Your task to perform on an android device: Find a good burger place on Maps Image 0: 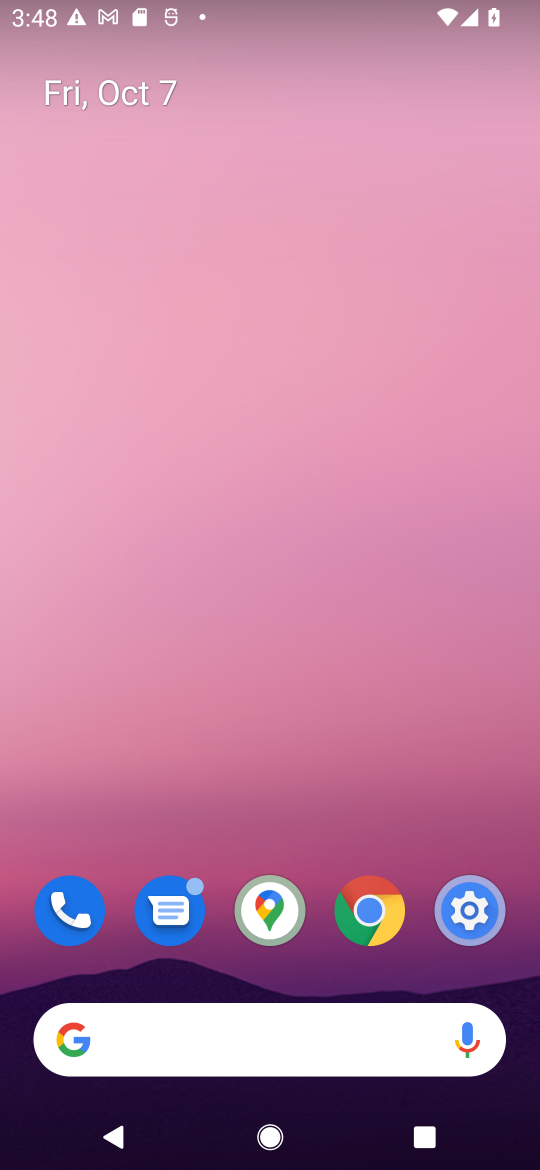
Step 0: drag from (268, 944) to (304, 402)
Your task to perform on an android device: Find a good burger place on Maps Image 1: 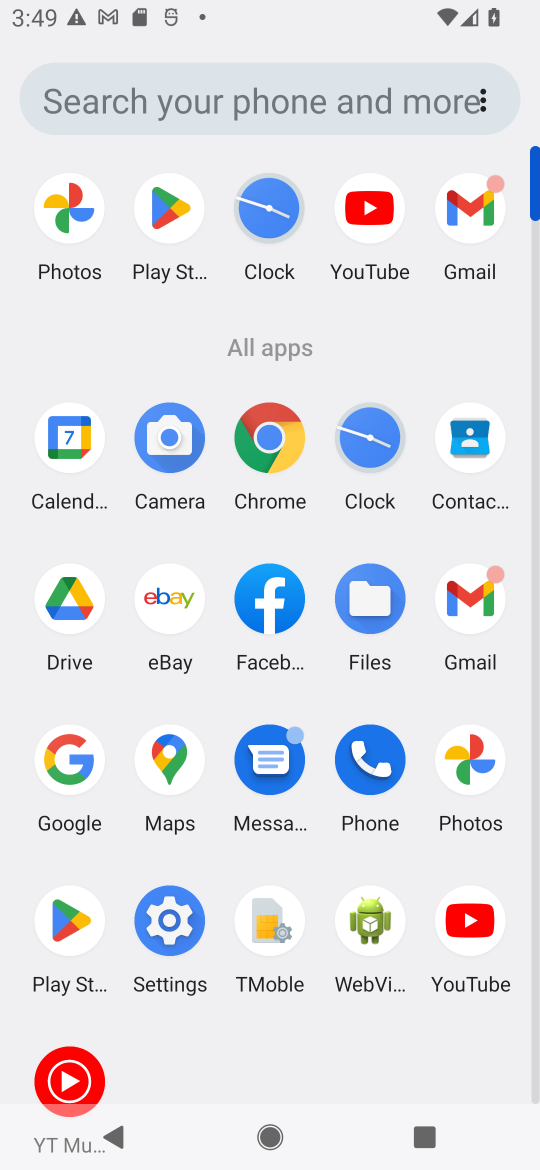
Step 1: click (166, 761)
Your task to perform on an android device: Find a good burger place on Maps Image 2: 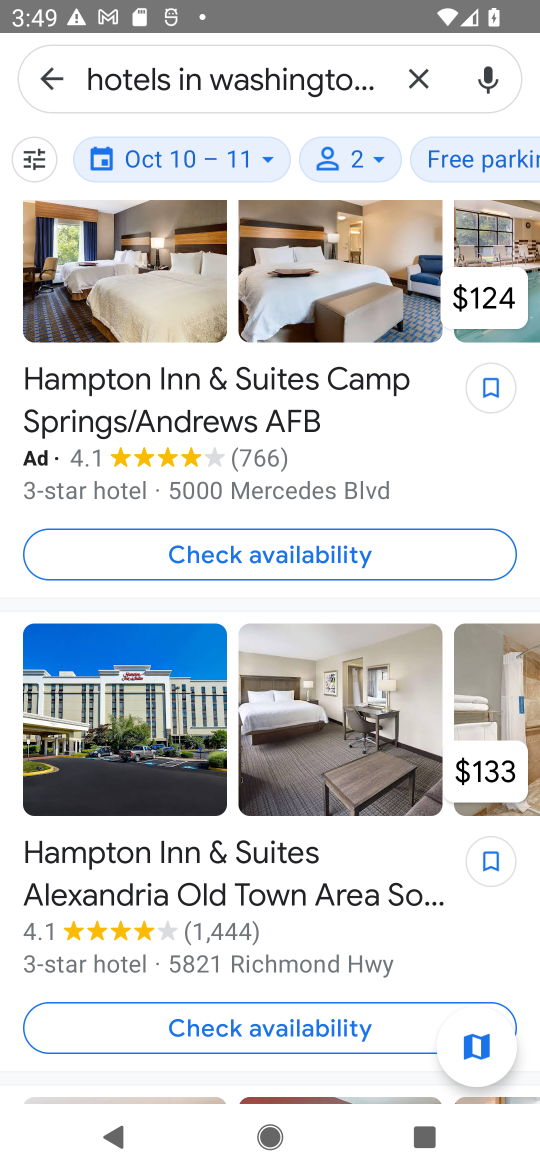
Step 2: click (53, 80)
Your task to perform on an android device: Find a good burger place on Maps Image 3: 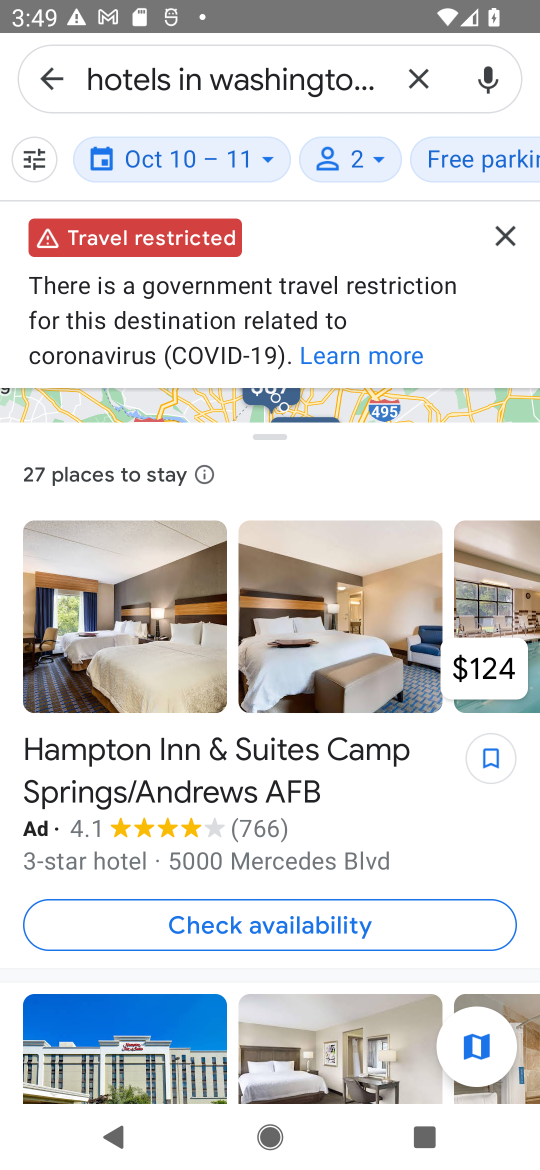
Step 3: click (424, 80)
Your task to perform on an android device: Find a good burger place on Maps Image 4: 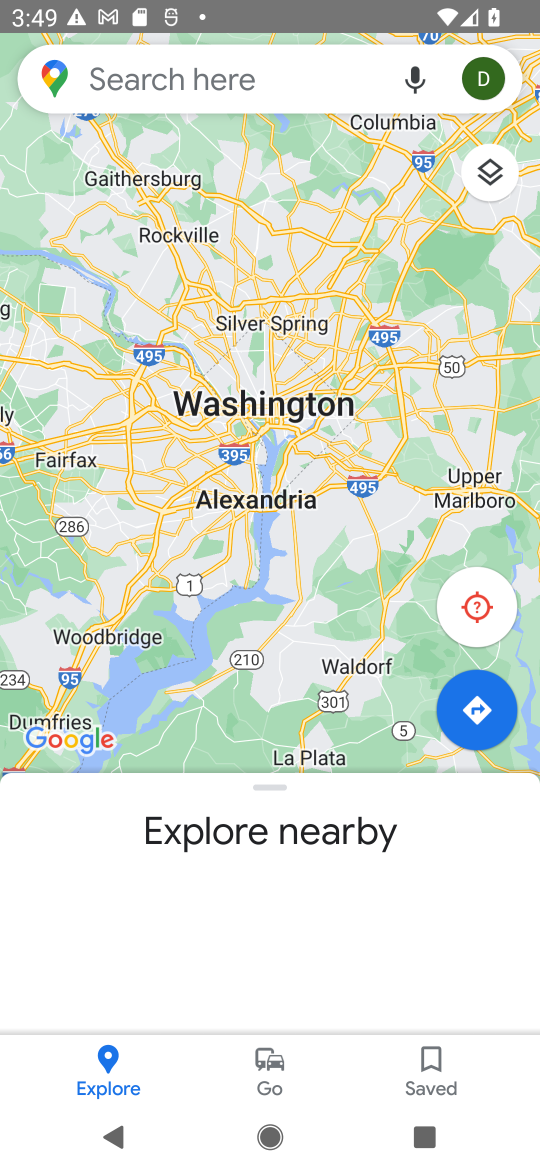
Step 4: click (296, 80)
Your task to perform on an android device: Find a good burger place on Maps Image 5: 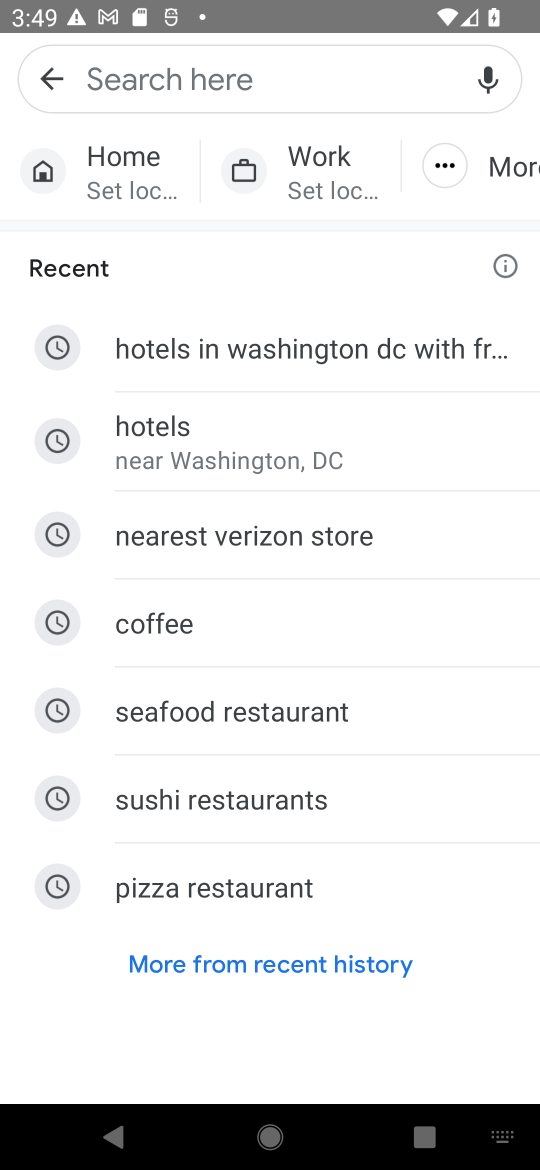
Step 5: type "good burger place"
Your task to perform on an android device: Find a good burger place on Maps Image 6: 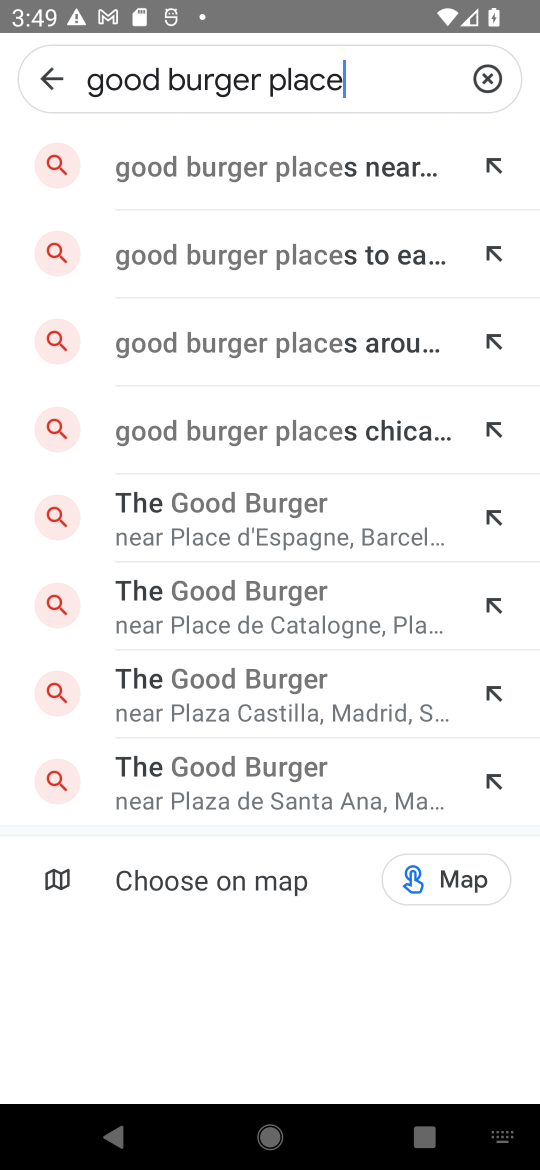
Step 6: click (299, 168)
Your task to perform on an android device: Find a good burger place on Maps Image 7: 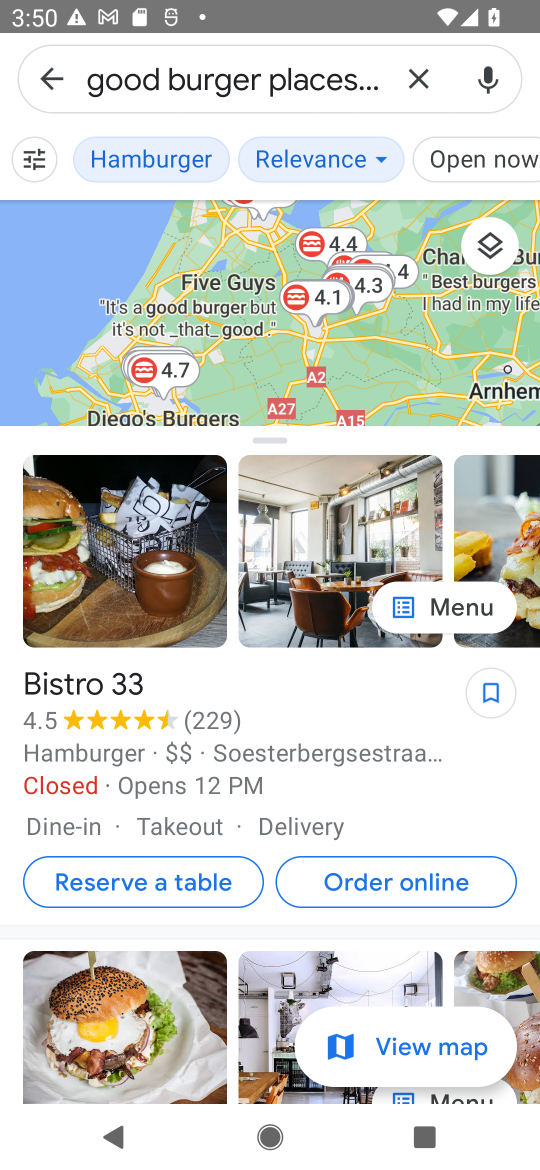
Step 7: task complete